Your task to perform on an android device: change notification settings in the gmail app Image 0: 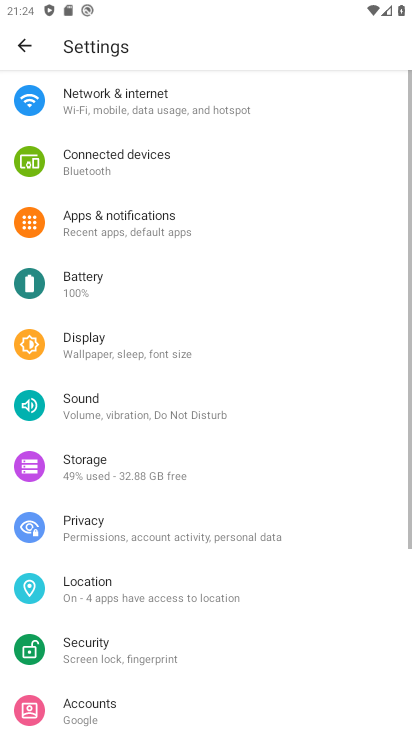
Step 0: press home button
Your task to perform on an android device: change notification settings in the gmail app Image 1: 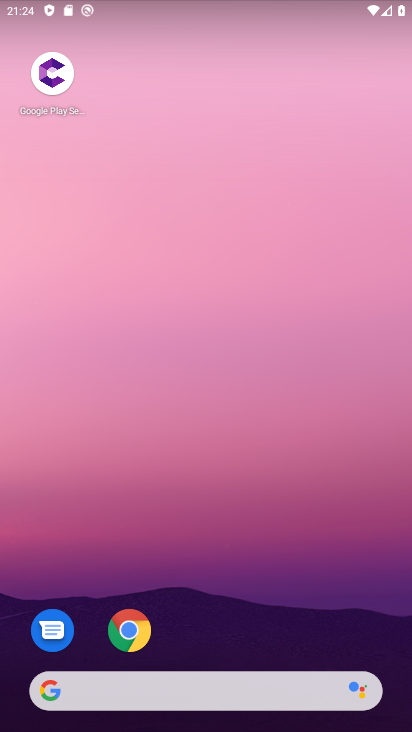
Step 1: drag from (201, 636) to (238, 115)
Your task to perform on an android device: change notification settings in the gmail app Image 2: 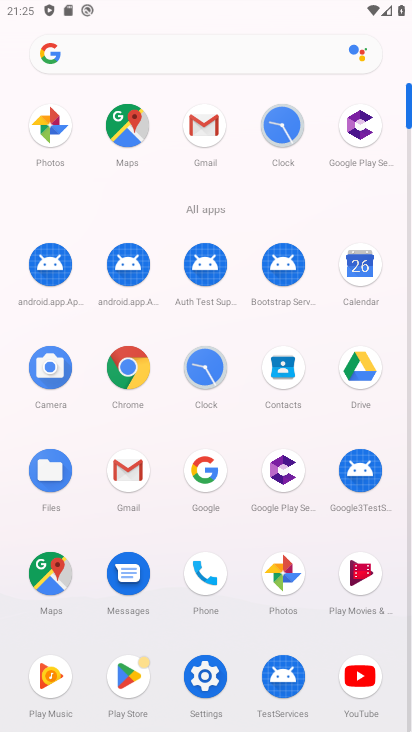
Step 2: click (204, 128)
Your task to perform on an android device: change notification settings in the gmail app Image 3: 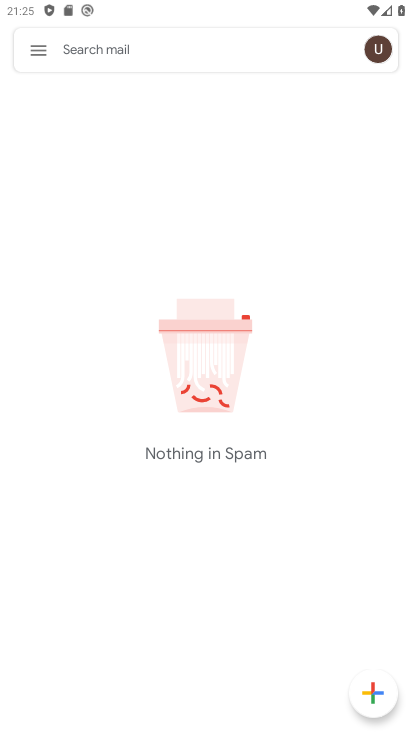
Step 3: click (33, 61)
Your task to perform on an android device: change notification settings in the gmail app Image 4: 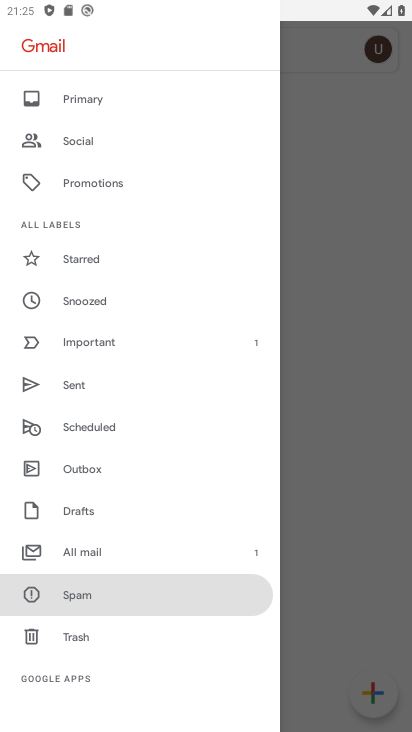
Step 4: drag from (94, 645) to (98, 291)
Your task to perform on an android device: change notification settings in the gmail app Image 5: 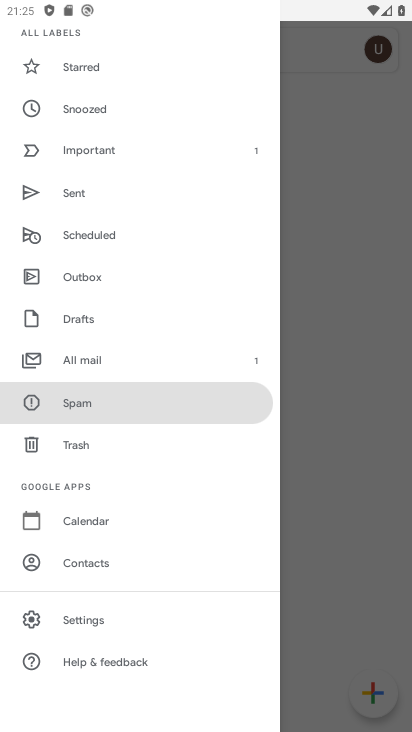
Step 5: click (103, 621)
Your task to perform on an android device: change notification settings in the gmail app Image 6: 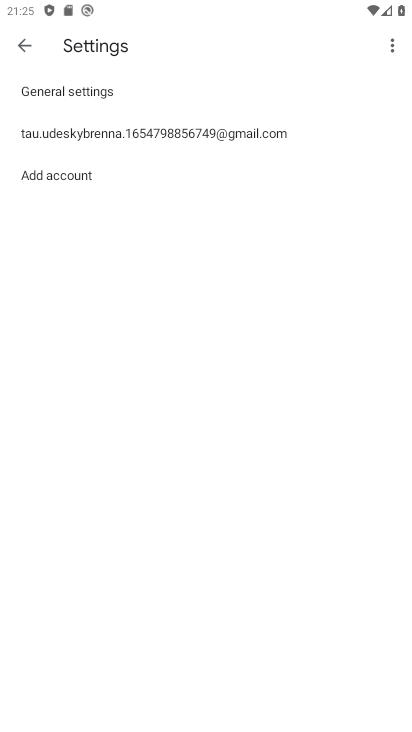
Step 6: click (191, 135)
Your task to perform on an android device: change notification settings in the gmail app Image 7: 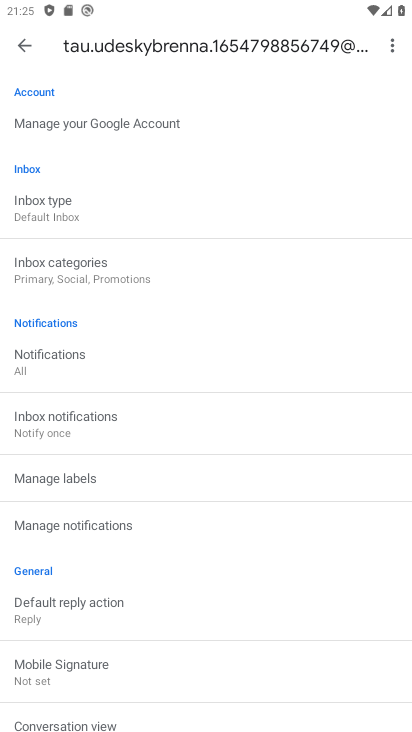
Step 7: click (90, 512)
Your task to perform on an android device: change notification settings in the gmail app Image 8: 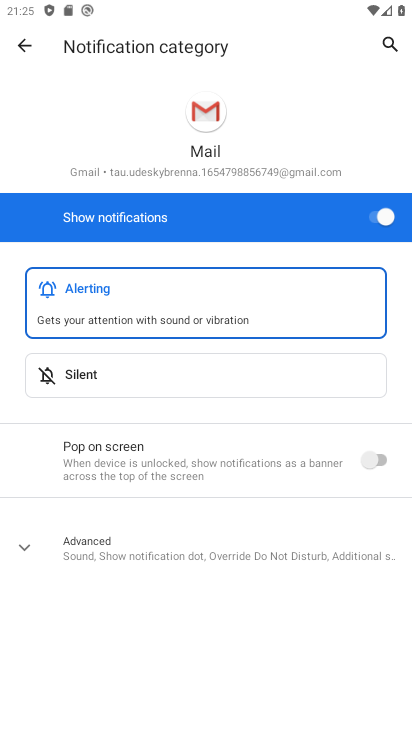
Step 8: click (390, 207)
Your task to perform on an android device: change notification settings in the gmail app Image 9: 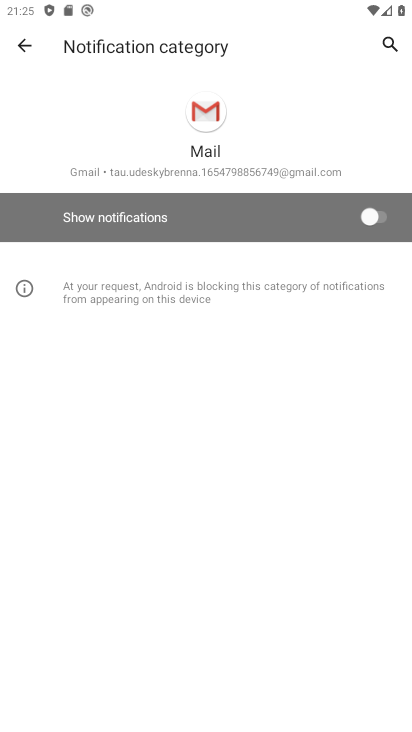
Step 9: task complete